Your task to perform on an android device: Show me recent news Image 0: 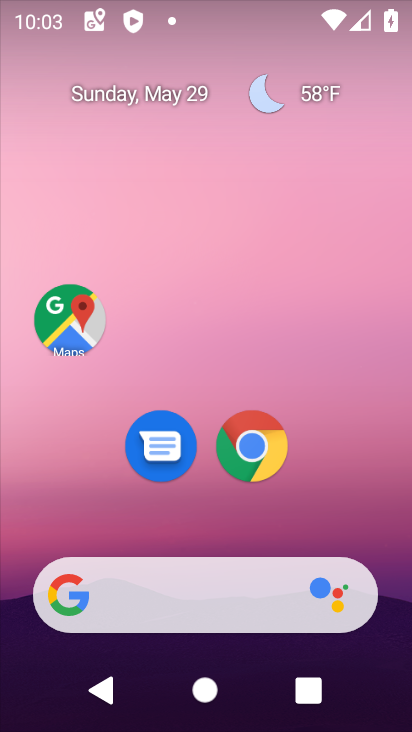
Step 0: drag from (200, 550) to (221, 194)
Your task to perform on an android device: Show me recent news Image 1: 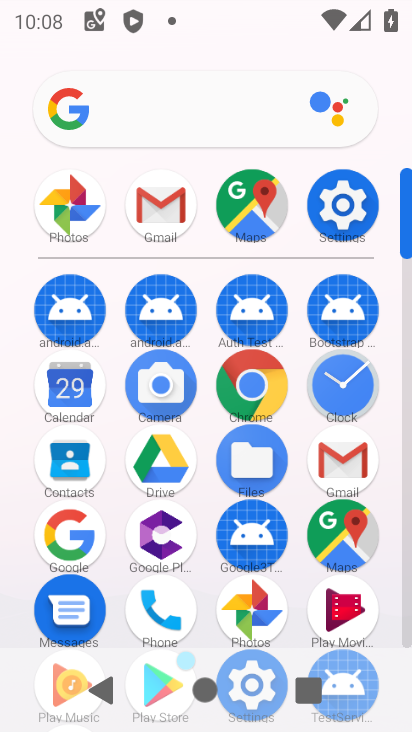
Step 1: click (61, 531)
Your task to perform on an android device: Show me recent news Image 2: 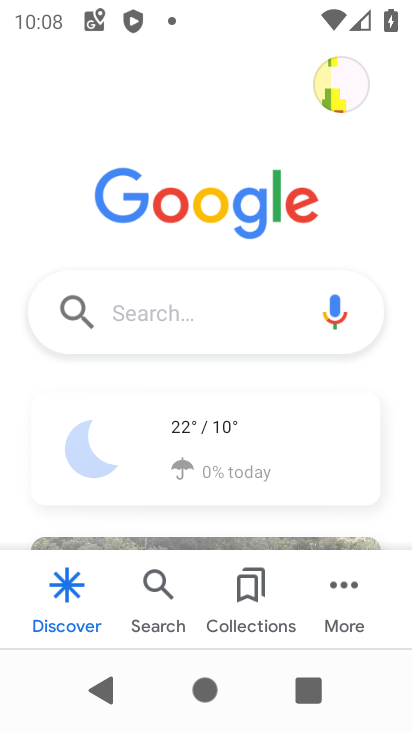
Step 2: click (132, 333)
Your task to perform on an android device: Show me recent news Image 3: 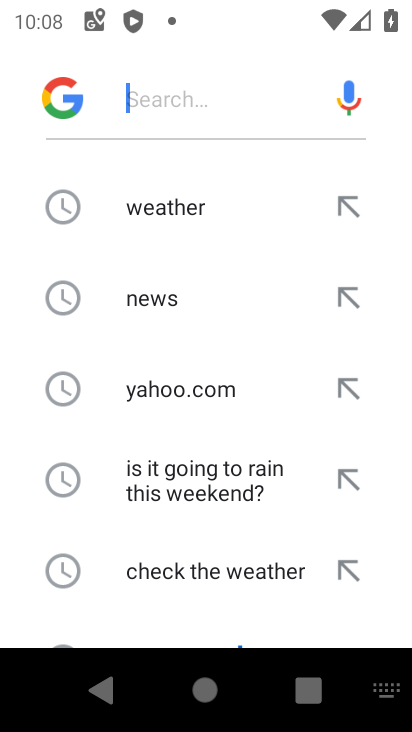
Step 3: drag from (227, 566) to (229, 198)
Your task to perform on an android device: Show me recent news Image 4: 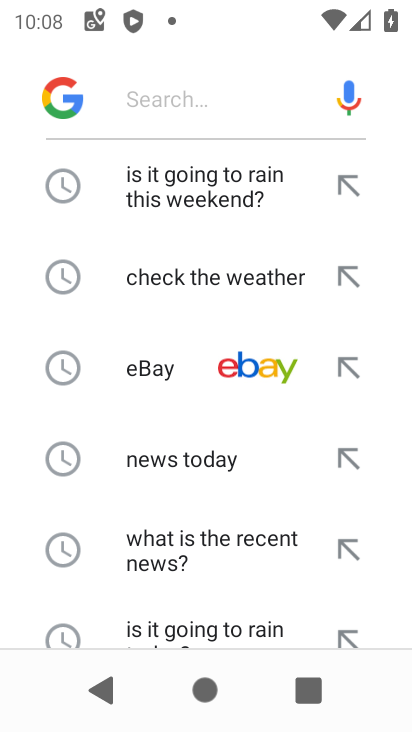
Step 4: drag from (233, 605) to (230, 209)
Your task to perform on an android device: Show me recent news Image 5: 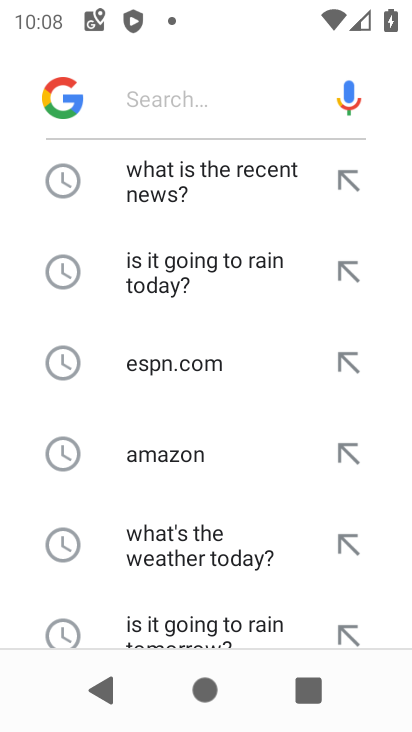
Step 5: drag from (174, 599) to (207, 263)
Your task to perform on an android device: Show me recent news Image 6: 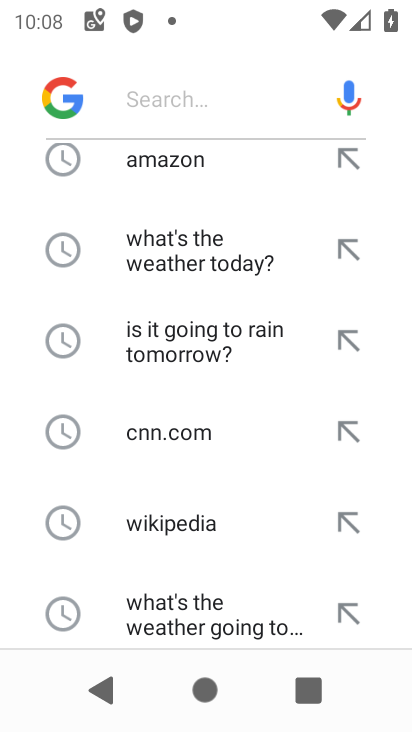
Step 6: drag from (164, 588) to (193, 240)
Your task to perform on an android device: Show me recent news Image 7: 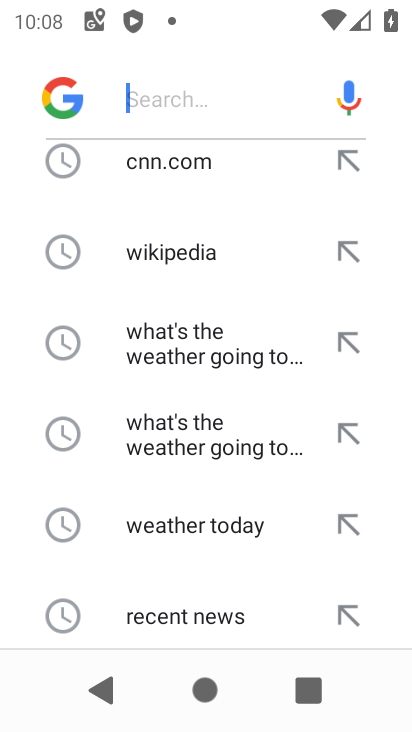
Step 7: click (182, 304)
Your task to perform on an android device: Show me recent news Image 8: 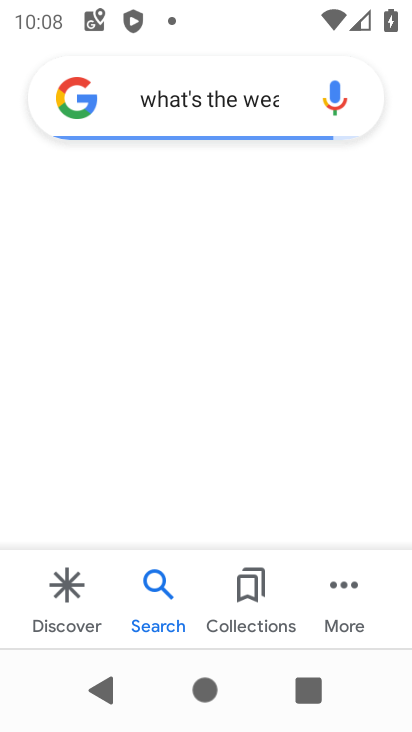
Step 8: click (148, 111)
Your task to perform on an android device: Show me recent news Image 9: 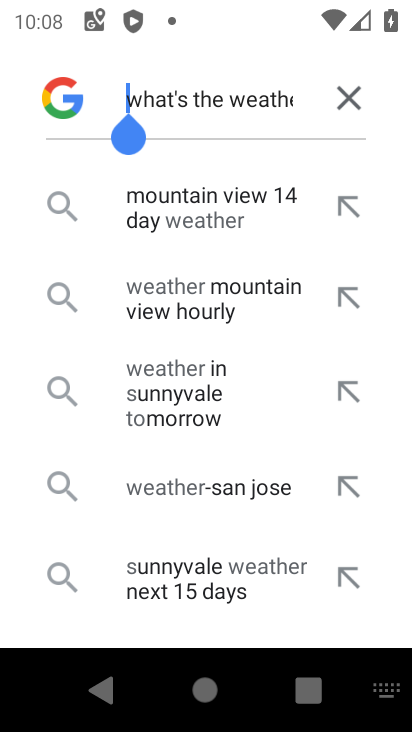
Step 9: click (359, 99)
Your task to perform on an android device: Show me recent news Image 10: 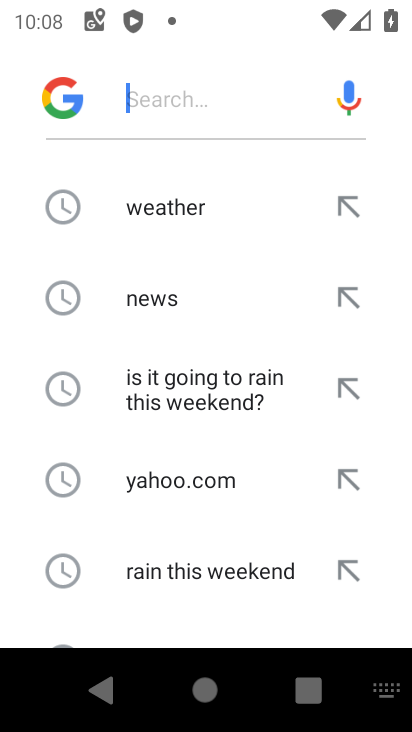
Step 10: drag from (221, 522) to (240, 75)
Your task to perform on an android device: Show me recent news Image 11: 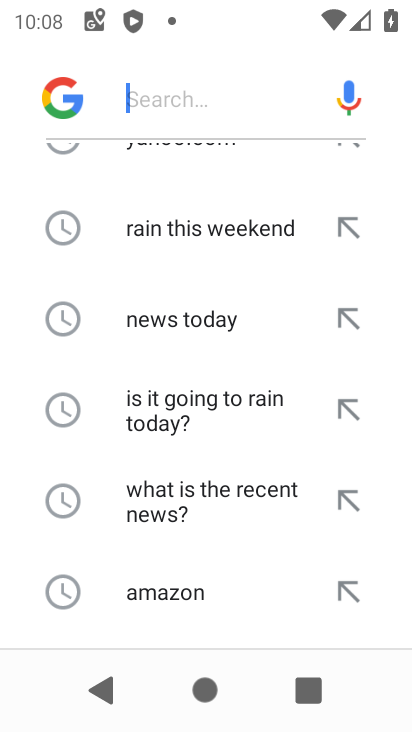
Step 11: drag from (218, 565) to (223, 187)
Your task to perform on an android device: Show me recent news Image 12: 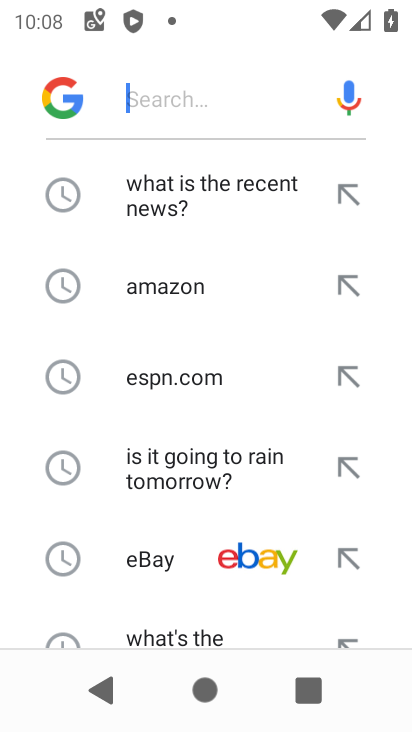
Step 12: drag from (172, 624) to (177, 298)
Your task to perform on an android device: Show me recent news Image 13: 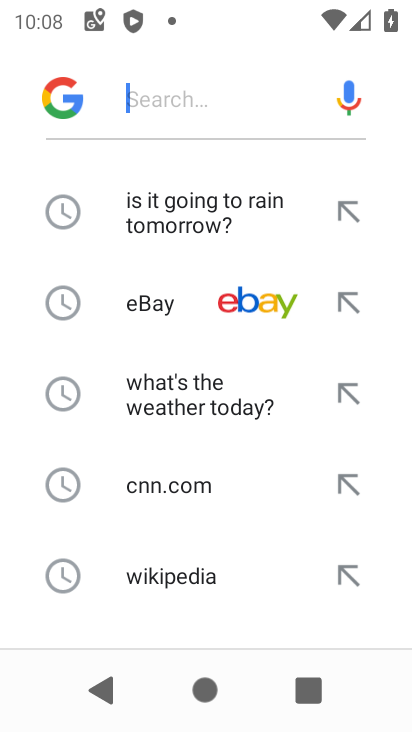
Step 13: drag from (148, 598) to (193, 278)
Your task to perform on an android device: Show me recent news Image 14: 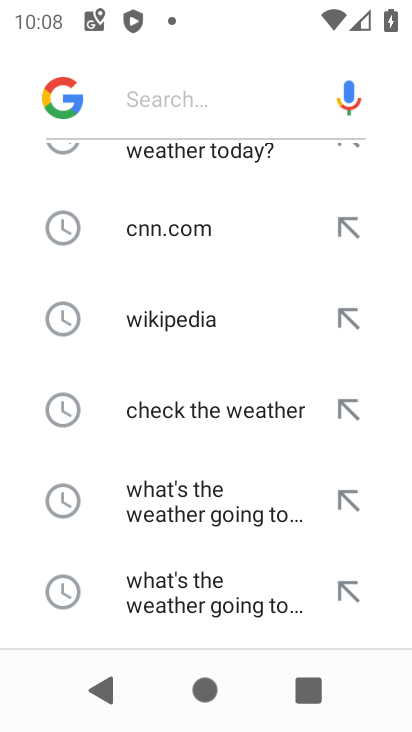
Step 14: drag from (169, 607) to (215, 238)
Your task to perform on an android device: Show me recent news Image 15: 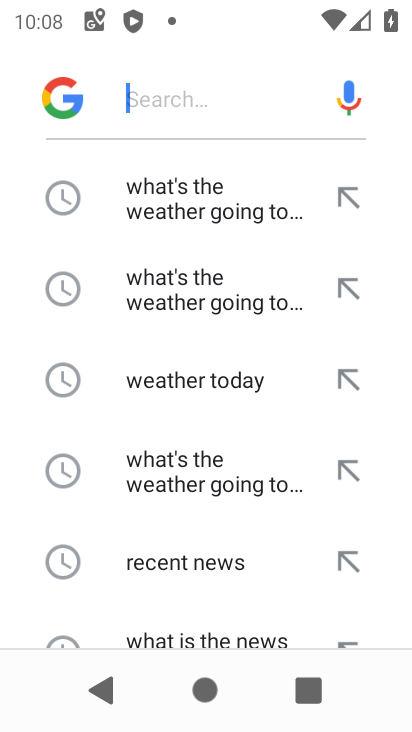
Step 15: drag from (164, 615) to (194, 261)
Your task to perform on an android device: Show me recent news Image 16: 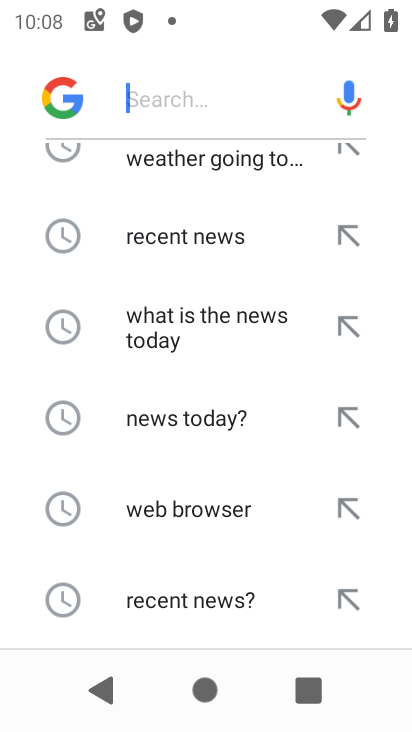
Step 16: click (196, 240)
Your task to perform on an android device: Show me recent news Image 17: 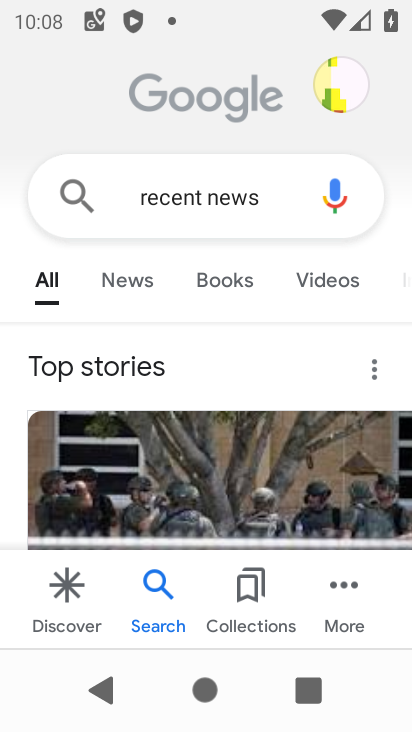
Step 17: task complete